Your task to perform on an android device: all mails in gmail Image 0: 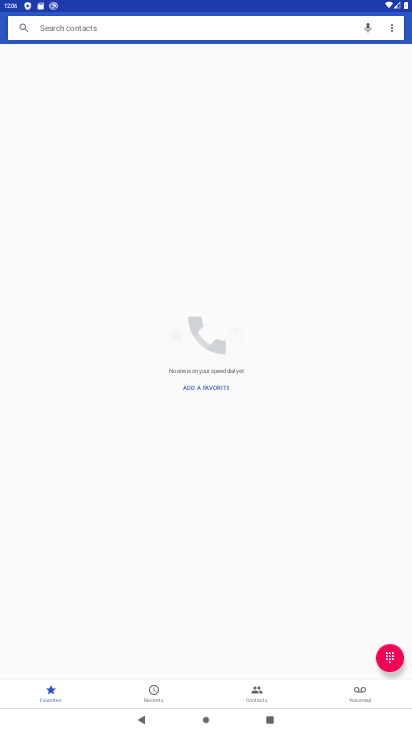
Step 0: press home button
Your task to perform on an android device: all mails in gmail Image 1: 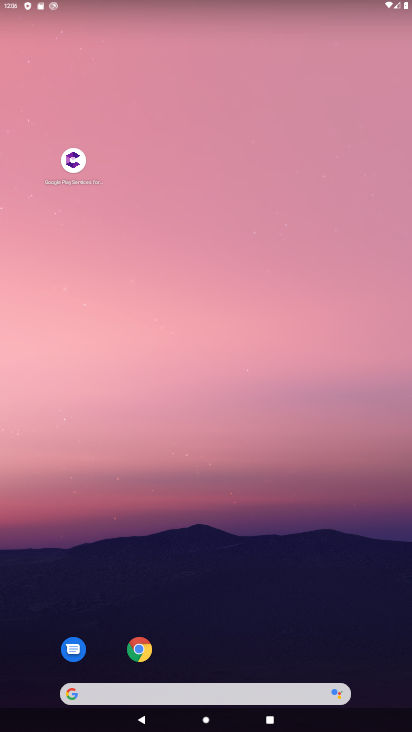
Step 1: drag from (190, 674) to (139, 148)
Your task to perform on an android device: all mails in gmail Image 2: 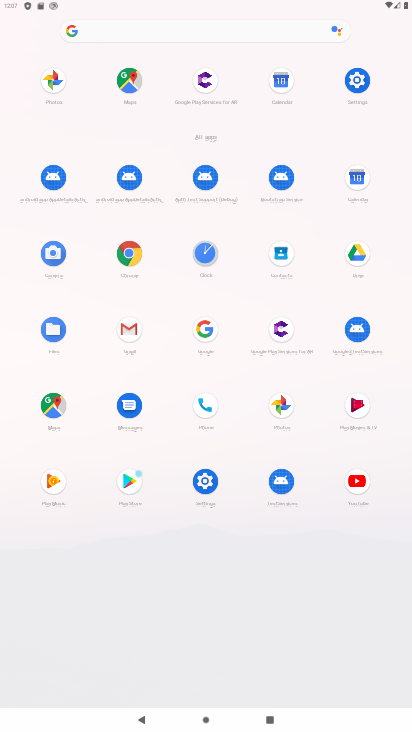
Step 2: click (124, 333)
Your task to perform on an android device: all mails in gmail Image 3: 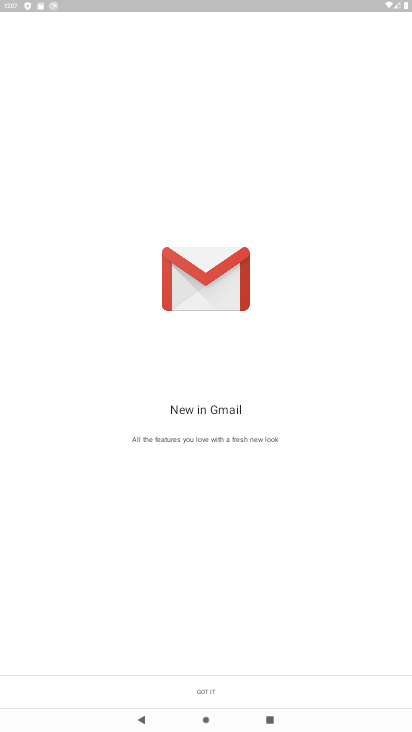
Step 3: click (213, 693)
Your task to perform on an android device: all mails in gmail Image 4: 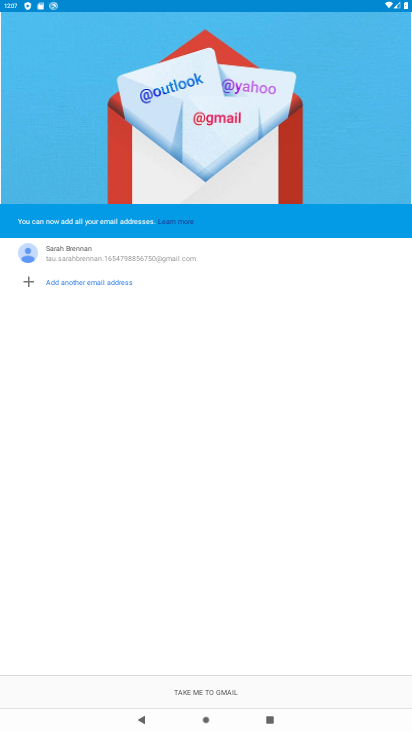
Step 4: click (181, 701)
Your task to perform on an android device: all mails in gmail Image 5: 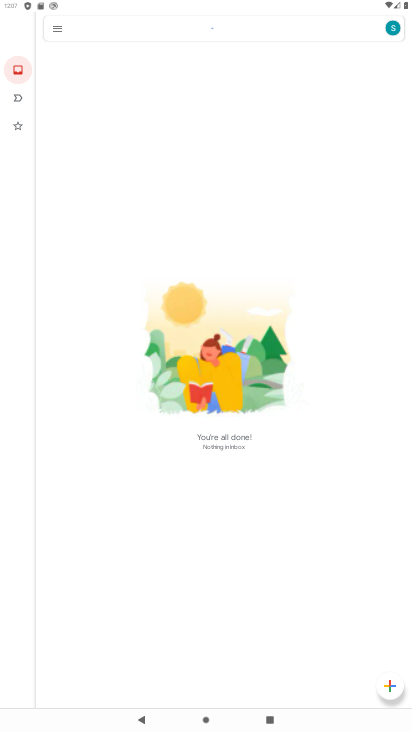
Step 5: click (57, 34)
Your task to perform on an android device: all mails in gmail Image 6: 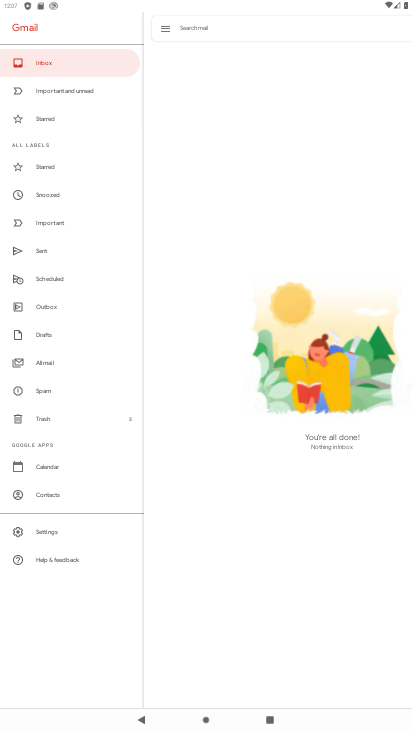
Step 6: click (39, 365)
Your task to perform on an android device: all mails in gmail Image 7: 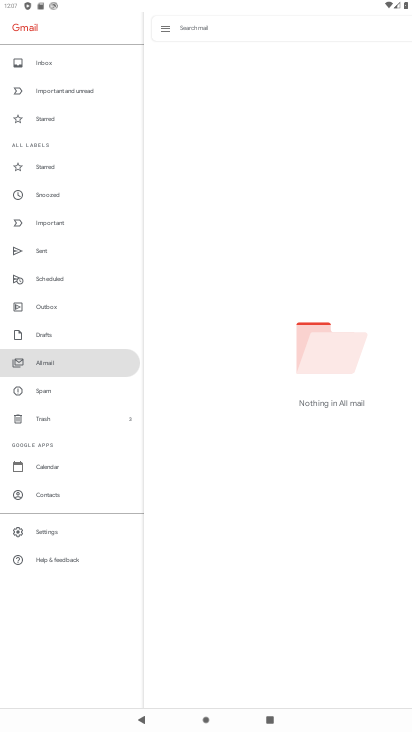
Step 7: task complete